Your task to perform on an android device: install app "Airtel Thanks" Image 0: 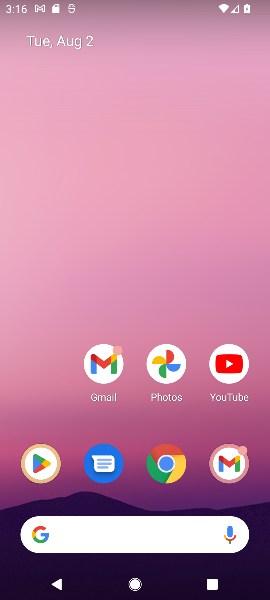
Step 0: press home button
Your task to perform on an android device: install app "Airtel Thanks" Image 1: 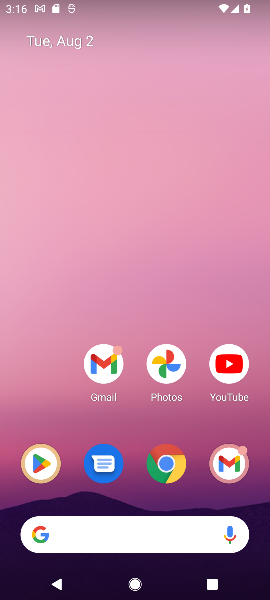
Step 1: click (43, 458)
Your task to perform on an android device: install app "Airtel Thanks" Image 2: 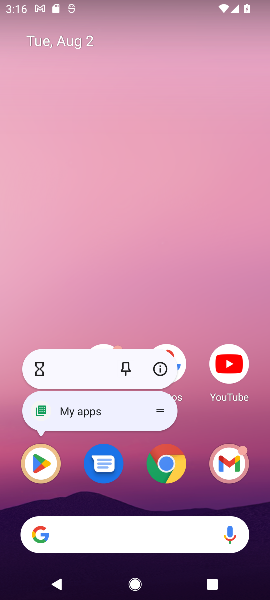
Step 2: click (38, 460)
Your task to perform on an android device: install app "Airtel Thanks" Image 3: 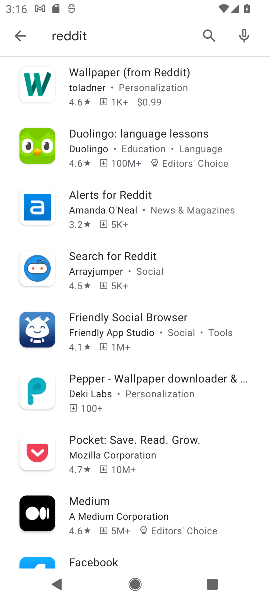
Step 3: click (209, 35)
Your task to perform on an android device: install app "Airtel Thanks" Image 4: 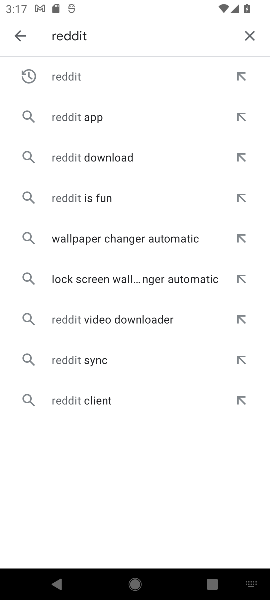
Step 4: click (247, 34)
Your task to perform on an android device: install app "Airtel Thanks" Image 5: 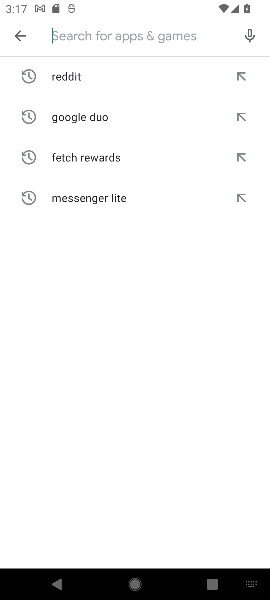
Step 5: type "Airtel Thanks"
Your task to perform on an android device: install app "Airtel Thanks" Image 6: 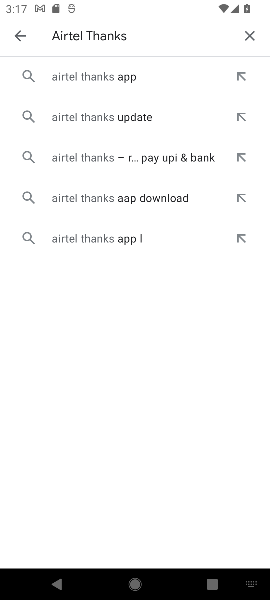
Step 6: click (115, 72)
Your task to perform on an android device: install app "Airtel Thanks" Image 7: 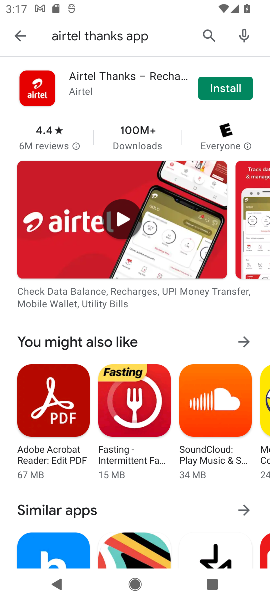
Step 7: click (225, 91)
Your task to perform on an android device: install app "Airtel Thanks" Image 8: 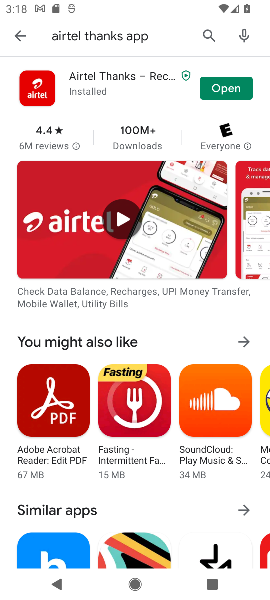
Step 8: task complete